Your task to perform on an android device: clear all cookies in the chrome app Image 0: 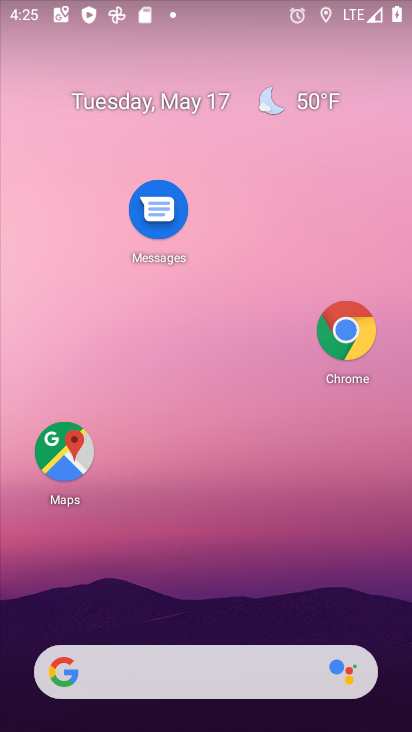
Step 0: click (349, 329)
Your task to perform on an android device: clear all cookies in the chrome app Image 1: 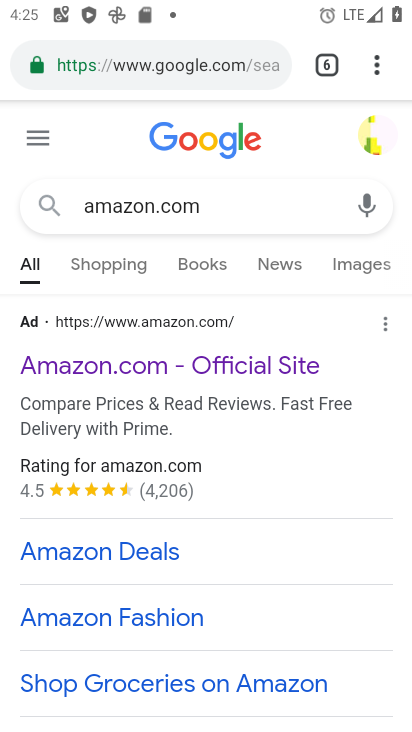
Step 1: click (372, 62)
Your task to perform on an android device: clear all cookies in the chrome app Image 2: 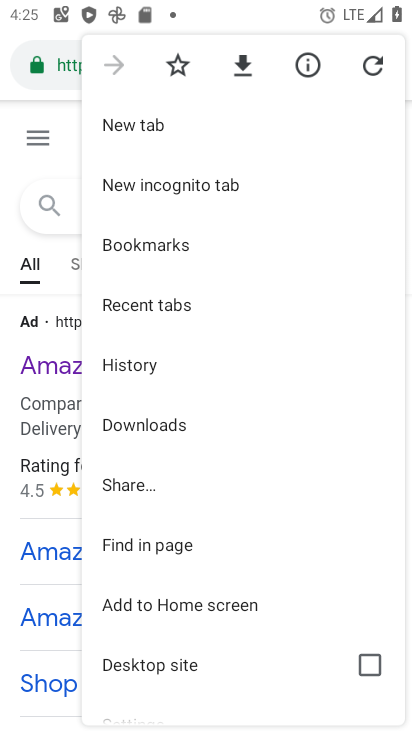
Step 2: drag from (186, 496) to (176, 292)
Your task to perform on an android device: clear all cookies in the chrome app Image 3: 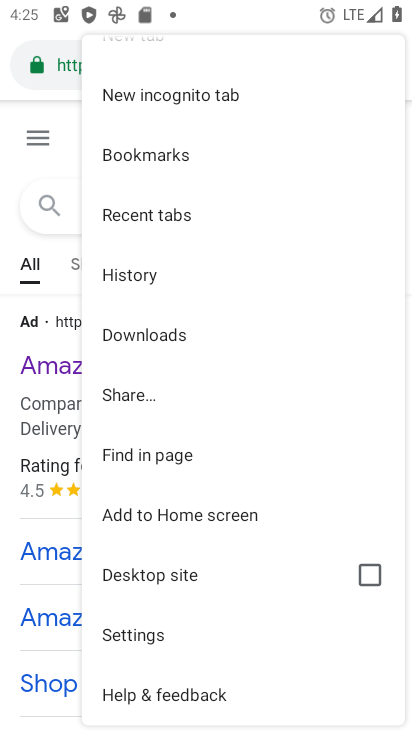
Step 3: click (160, 647)
Your task to perform on an android device: clear all cookies in the chrome app Image 4: 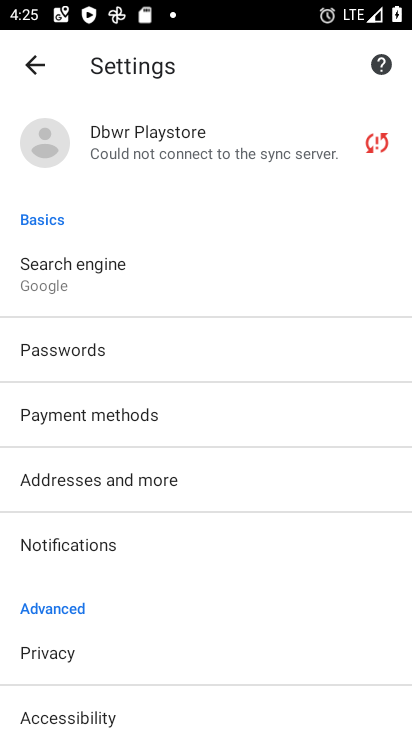
Step 4: click (19, 78)
Your task to perform on an android device: clear all cookies in the chrome app Image 5: 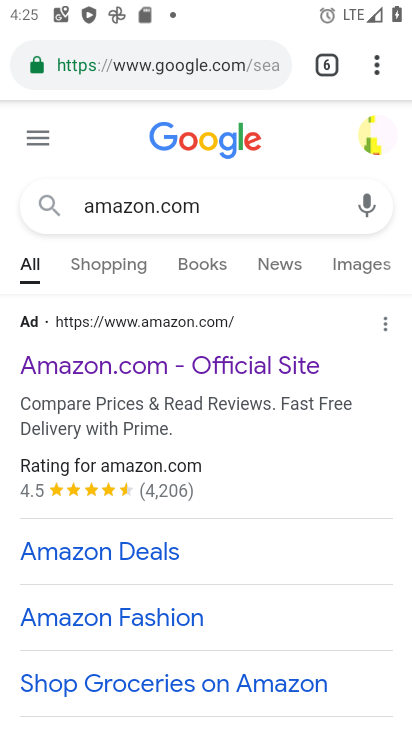
Step 5: click (370, 76)
Your task to perform on an android device: clear all cookies in the chrome app Image 6: 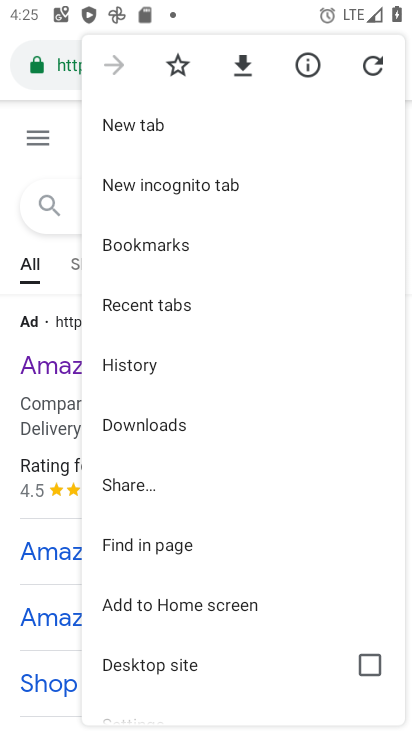
Step 6: drag from (183, 551) to (178, 409)
Your task to perform on an android device: clear all cookies in the chrome app Image 7: 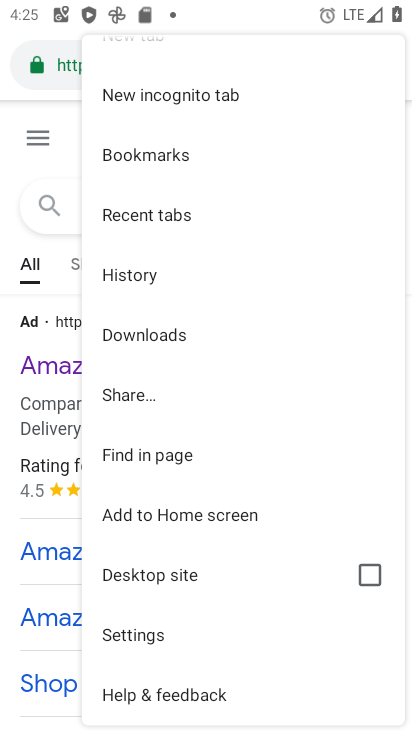
Step 7: click (144, 280)
Your task to perform on an android device: clear all cookies in the chrome app Image 8: 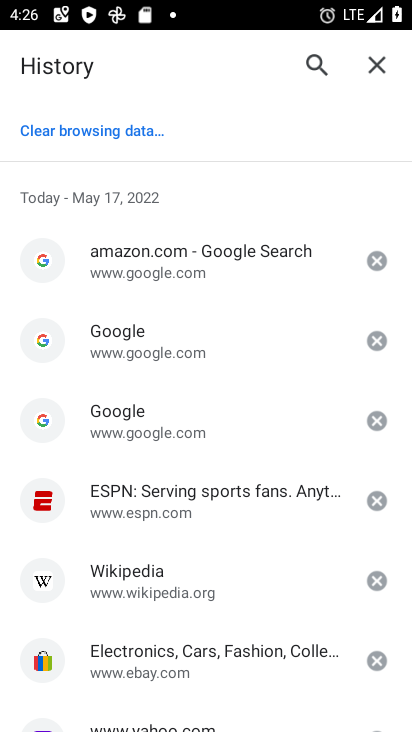
Step 8: click (152, 128)
Your task to perform on an android device: clear all cookies in the chrome app Image 9: 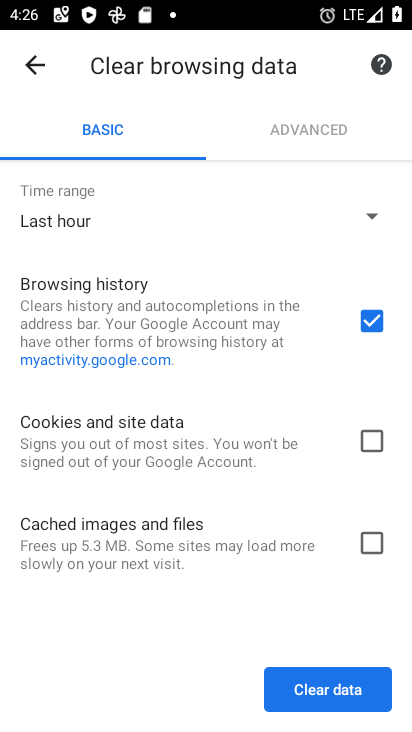
Step 9: click (364, 321)
Your task to perform on an android device: clear all cookies in the chrome app Image 10: 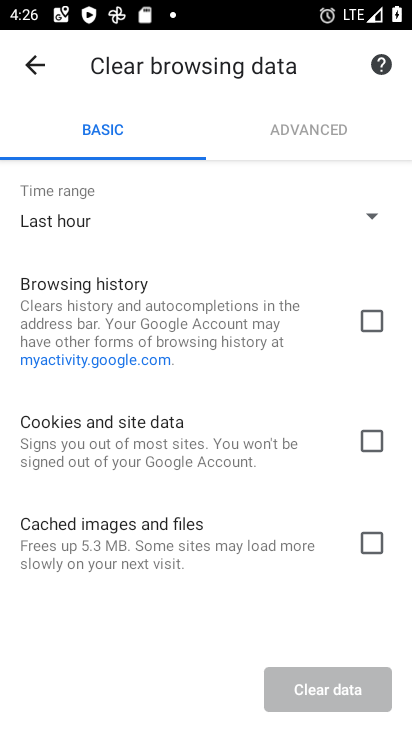
Step 10: click (361, 458)
Your task to perform on an android device: clear all cookies in the chrome app Image 11: 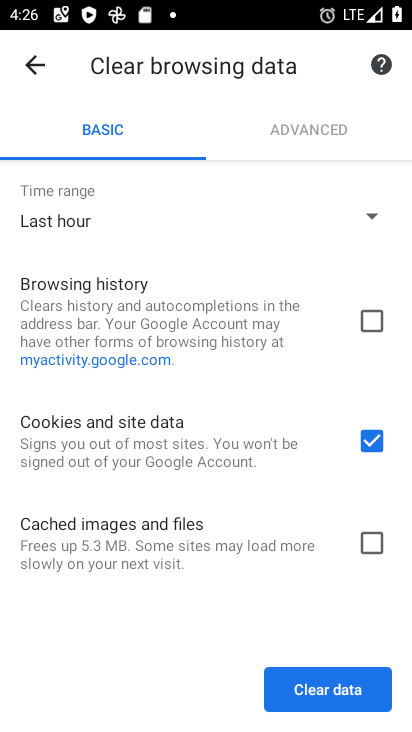
Step 11: click (345, 679)
Your task to perform on an android device: clear all cookies in the chrome app Image 12: 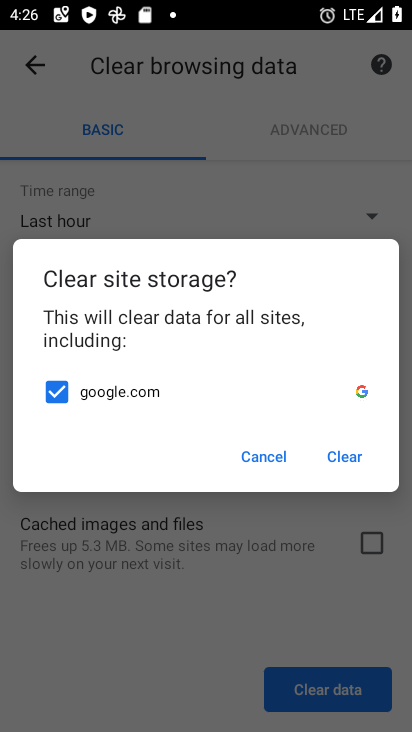
Step 12: click (344, 438)
Your task to perform on an android device: clear all cookies in the chrome app Image 13: 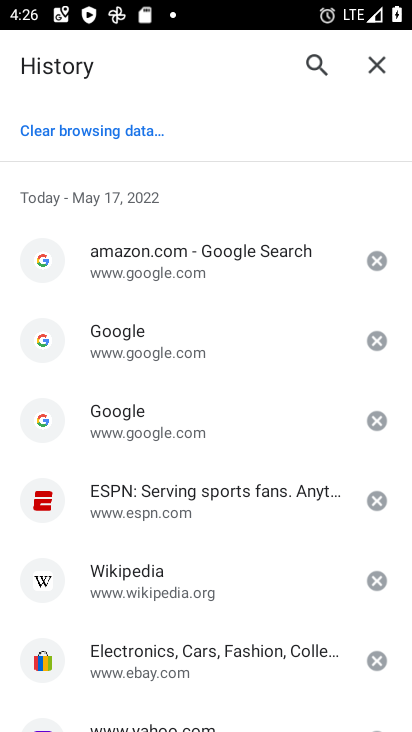
Step 13: task complete